Your task to perform on an android device: Empty the shopping cart on ebay. Add "usb-c to usb-b" to the cart on ebay, then select checkout. Image 0: 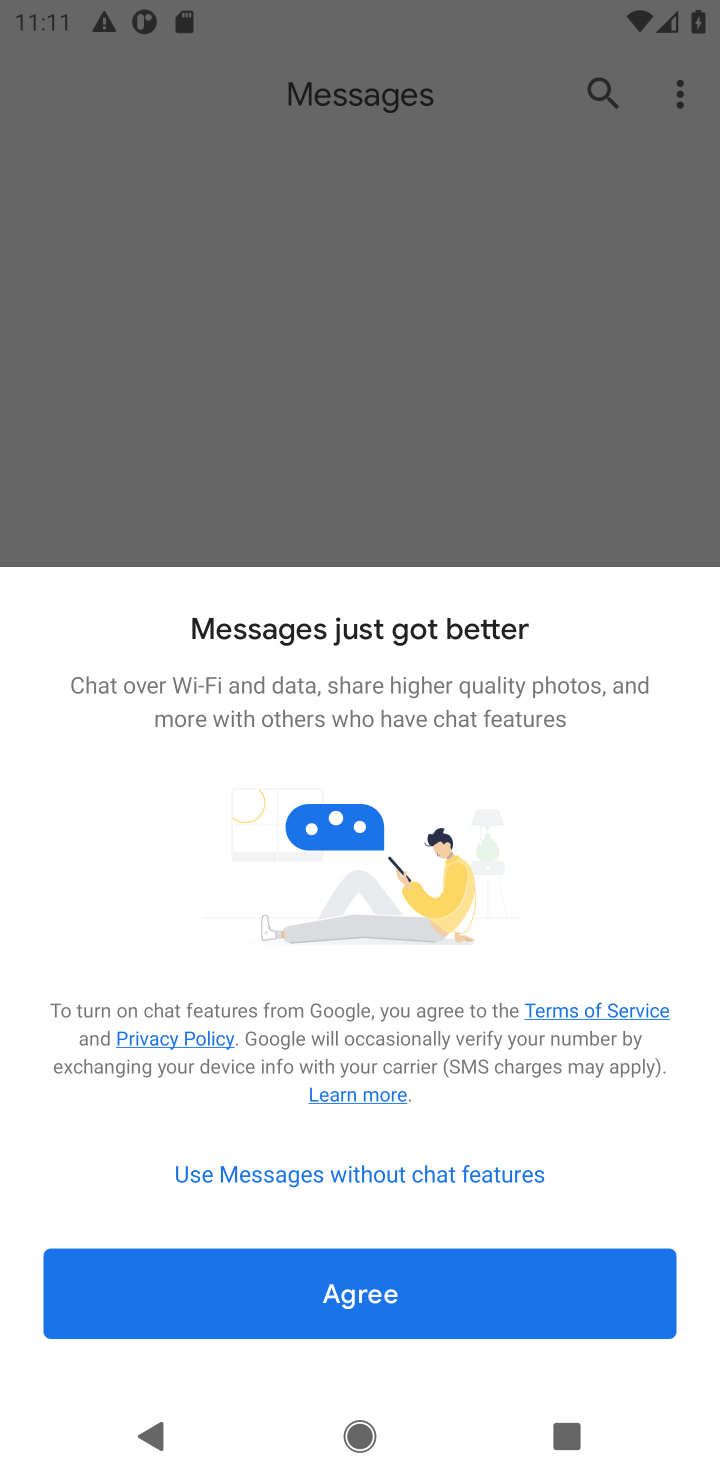
Step 0: press home button
Your task to perform on an android device: Empty the shopping cart on ebay. Add "usb-c to usb-b" to the cart on ebay, then select checkout. Image 1: 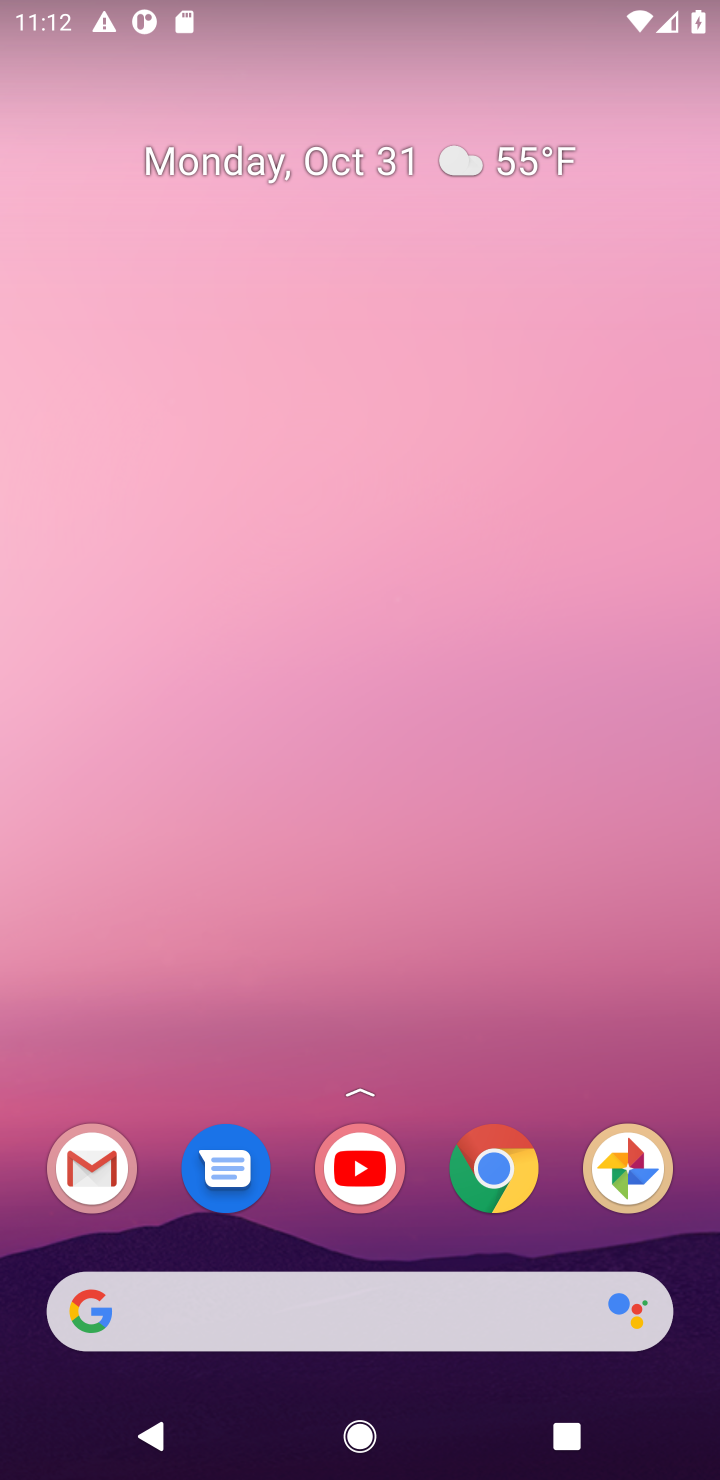
Step 1: click (499, 1166)
Your task to perform on an android device: Empty the shopping cart on ebay. Add "usb-c to usb-b" to the cart on ebay, then select checkout. Image 2: 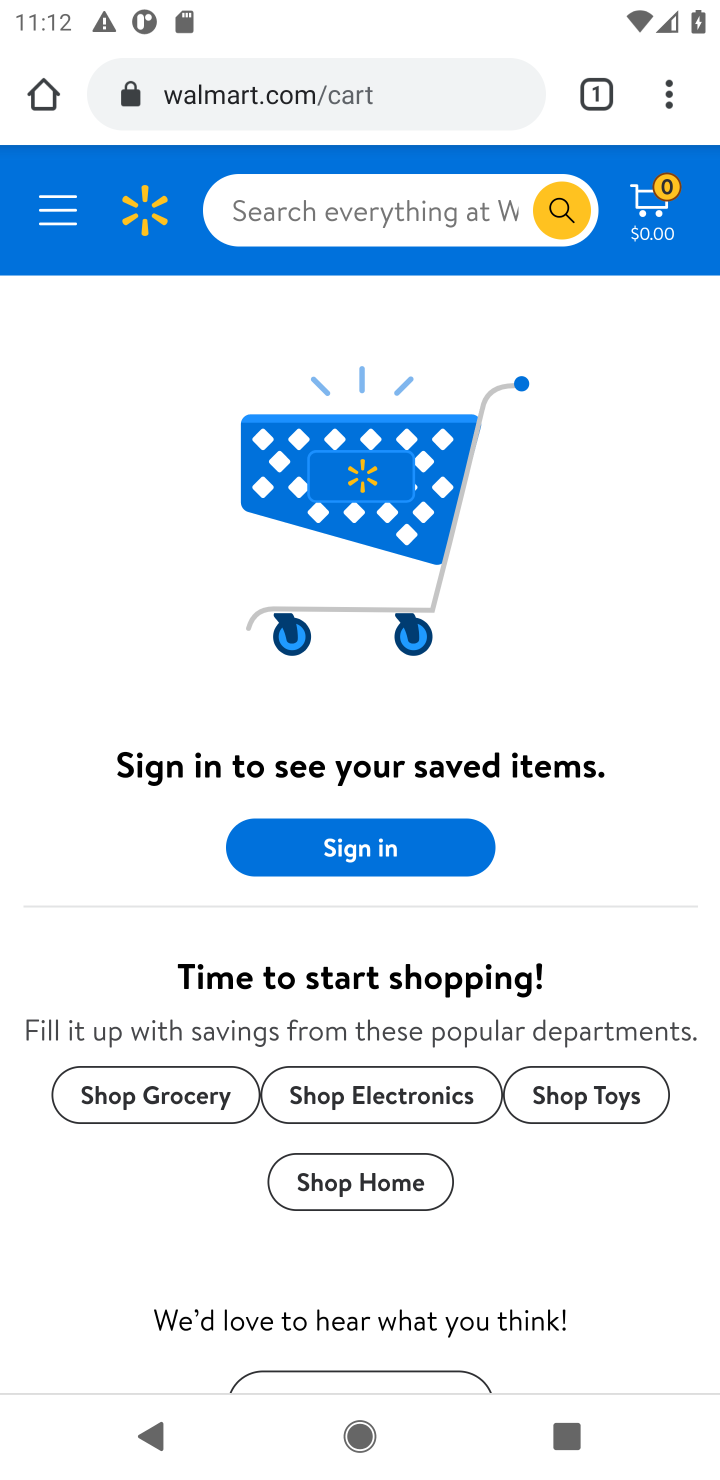
Step 2: click (235, 94)
Your task to perform on an android device: Empty the shopping cart on ebay. Add "usb-c to usb-b" to the cart on ebay, then select checkout. Image 3: 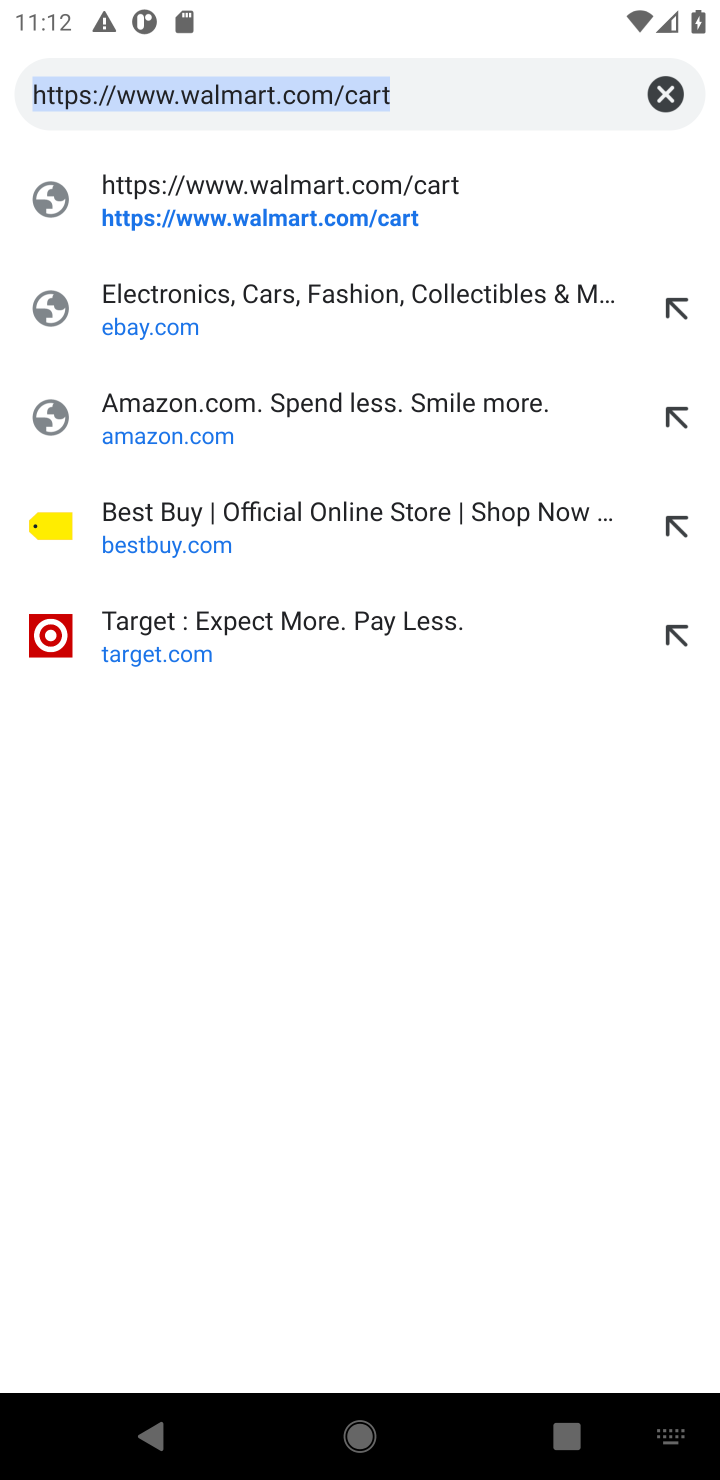
Step 3: type "ebay"
Your task to perform on an android device: Empty the shopping cart on ebay. Add "usb-c to usb-b" to the cart on ebay, then select checkout. Image 4: 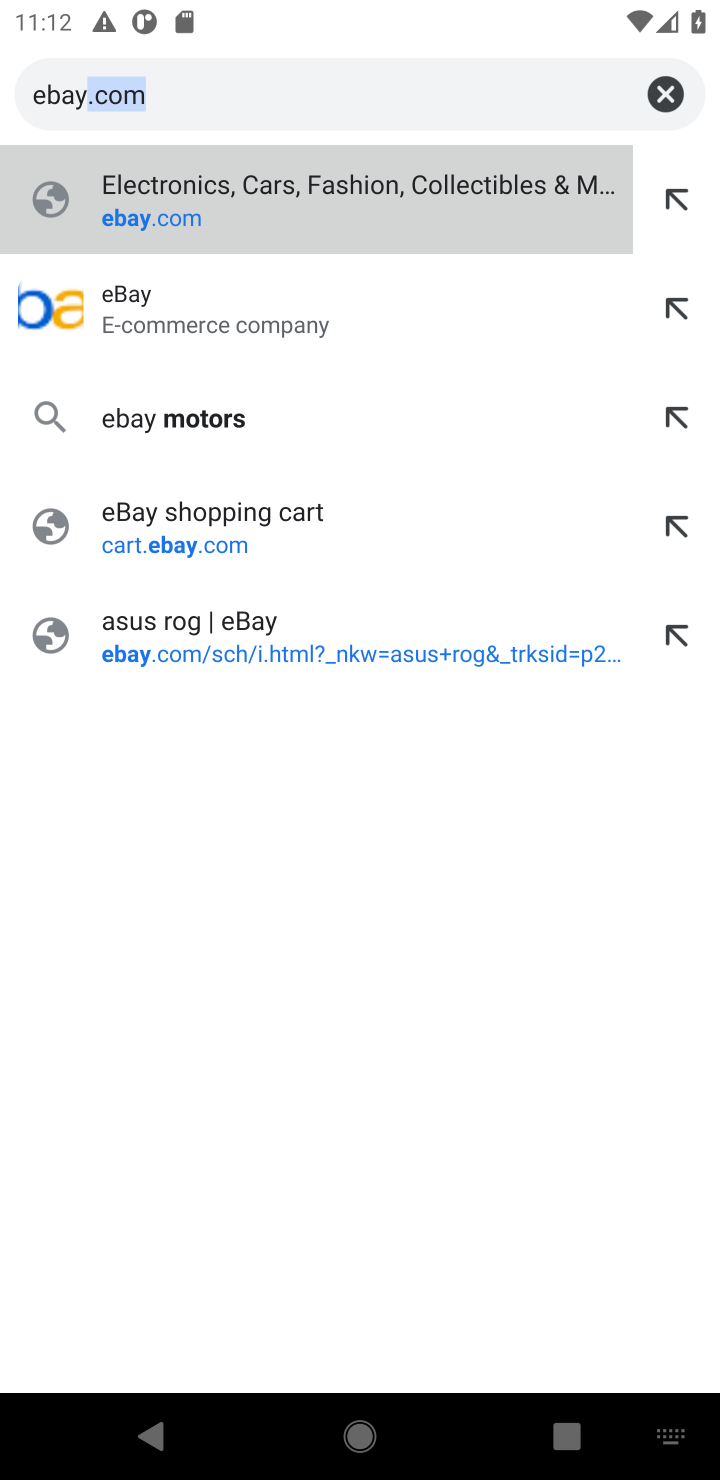
Step 4: press enter
Your task to perform on an android device: Empty the shopping cart on ebay. Add "usb-c to usb-b" to the cart on ebay, then select checkout. Image 5: 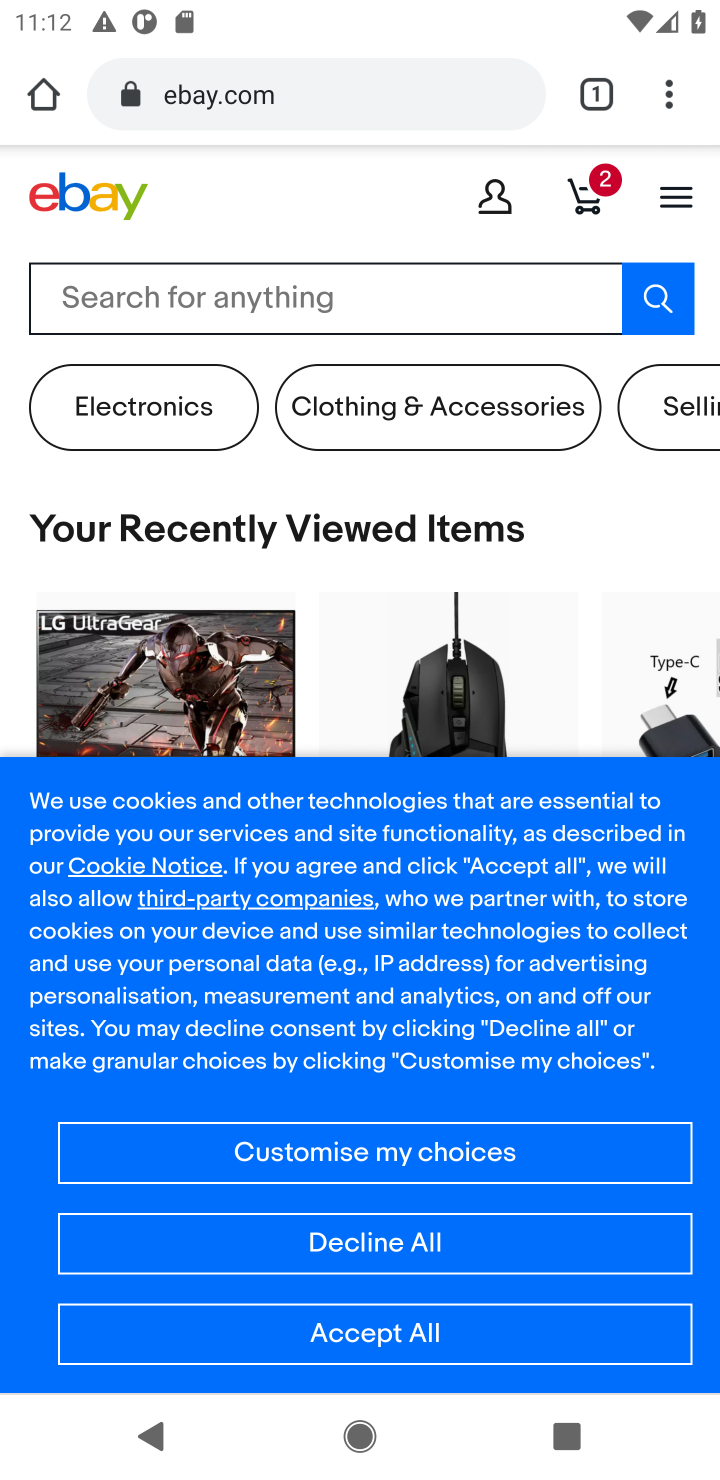
Step 5: click (351, 1337)
Your task to perform on an android device: Empty the shopping cart on ebay. Add "usb-c to usb-b" to the cart on ebay, then select checkout. Image 6: 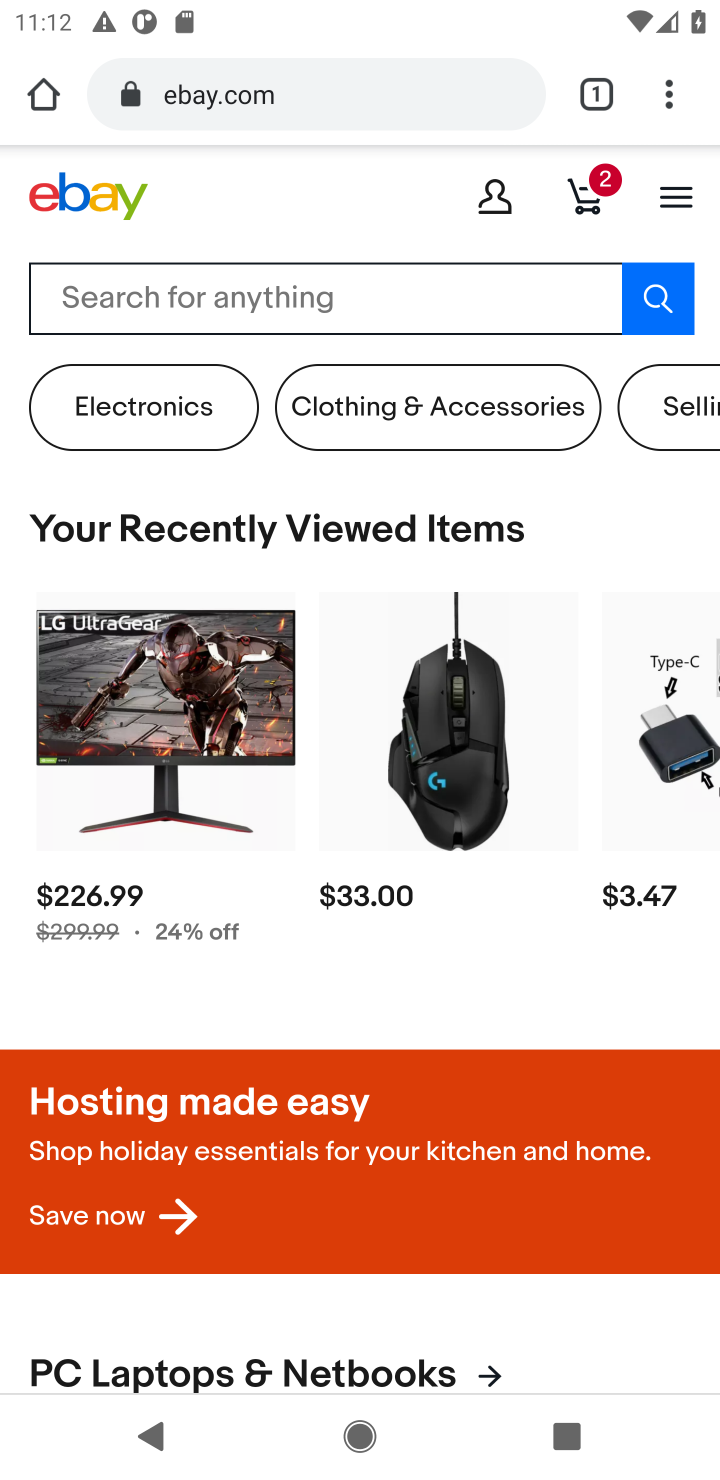
Step 6: click (582, 197)
Your task to perform on an android device: Empty the shopping cart on ebay. Add "usb-c to usb-b" to the cart on ebay, then select checkout. Image 7: 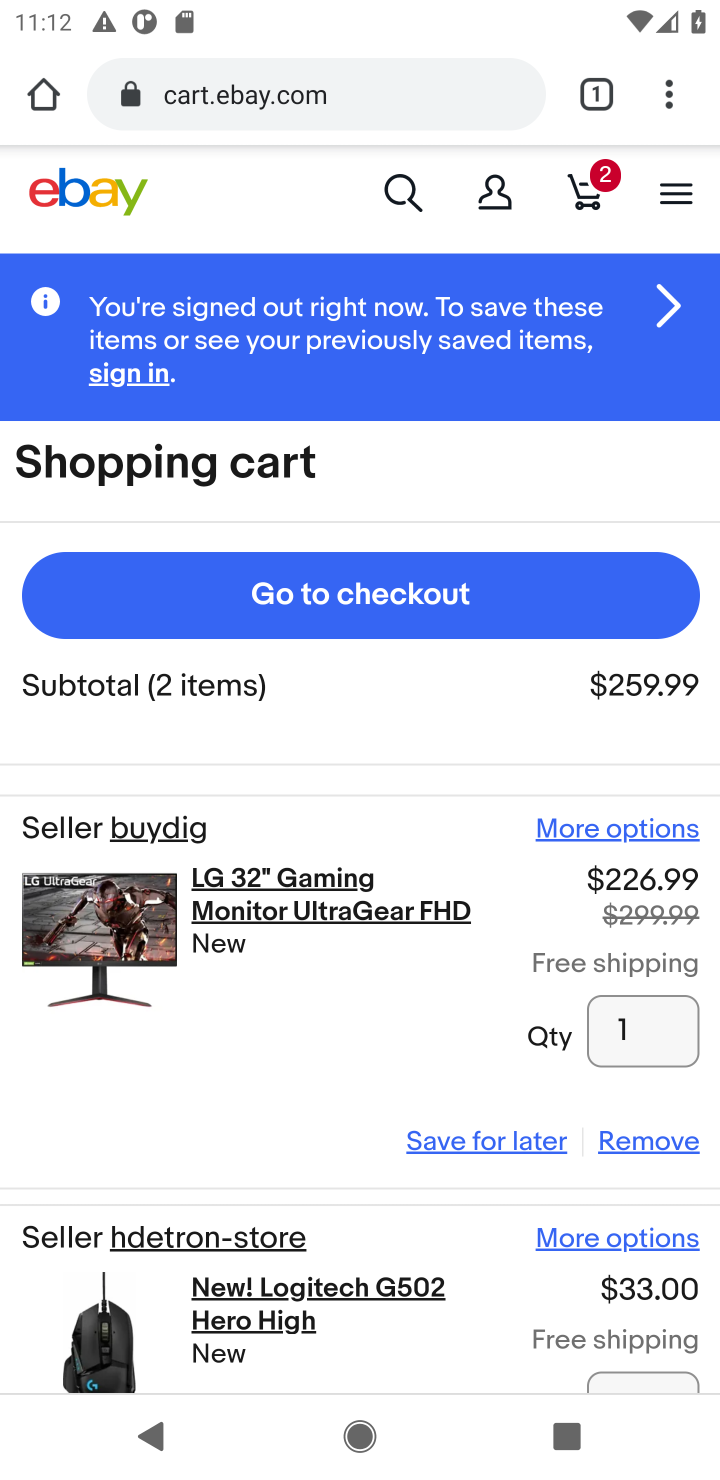
Step 7: click (623, 1141)
Your task to perform on an android device: Empty the shopping cart on ebay. Add "usb-c to usb-b" to the cart on ebay, then select checkout. Image 8: 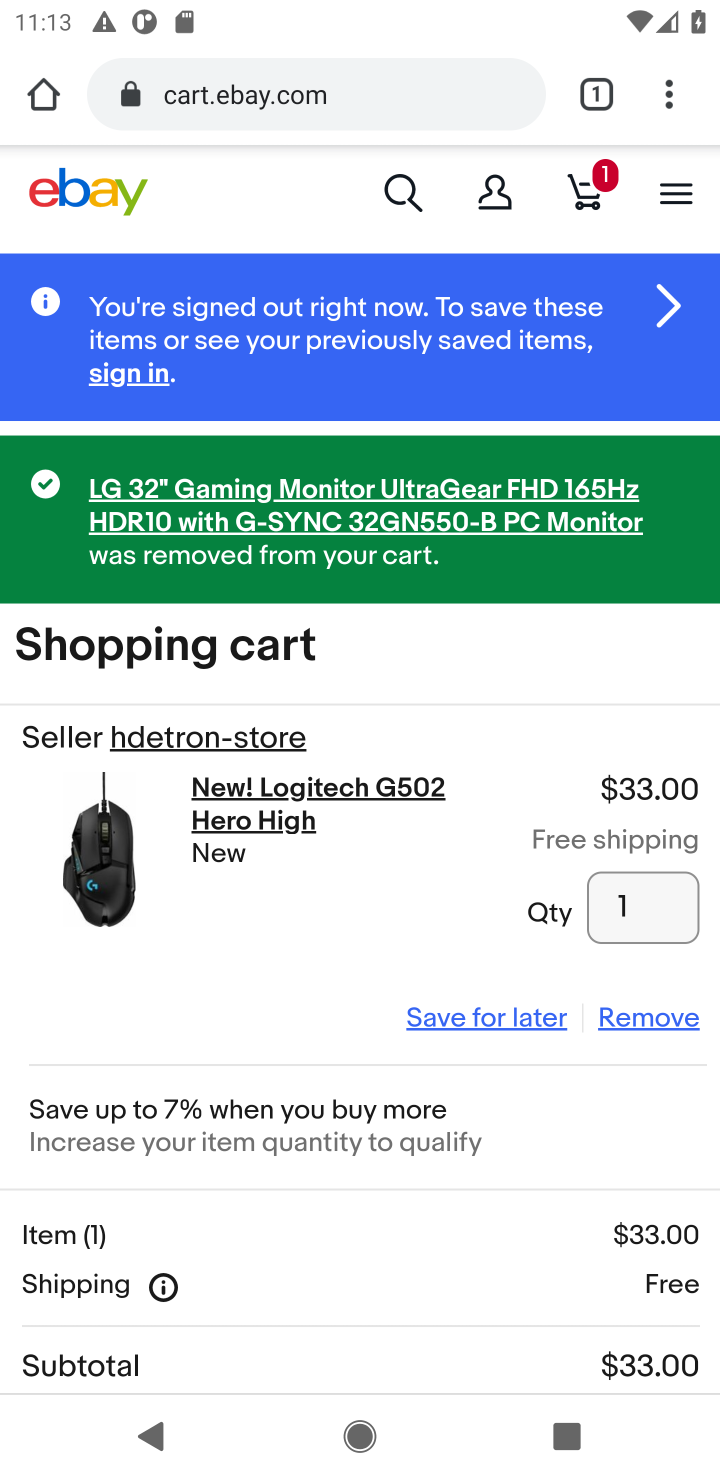
Step 8: click (650, 1018)
Your task to perform on an android device: Empty the shopping cart on ebay. Add "usb-c to usb-b" to the cart on ebay, then select checkout. Image 9: 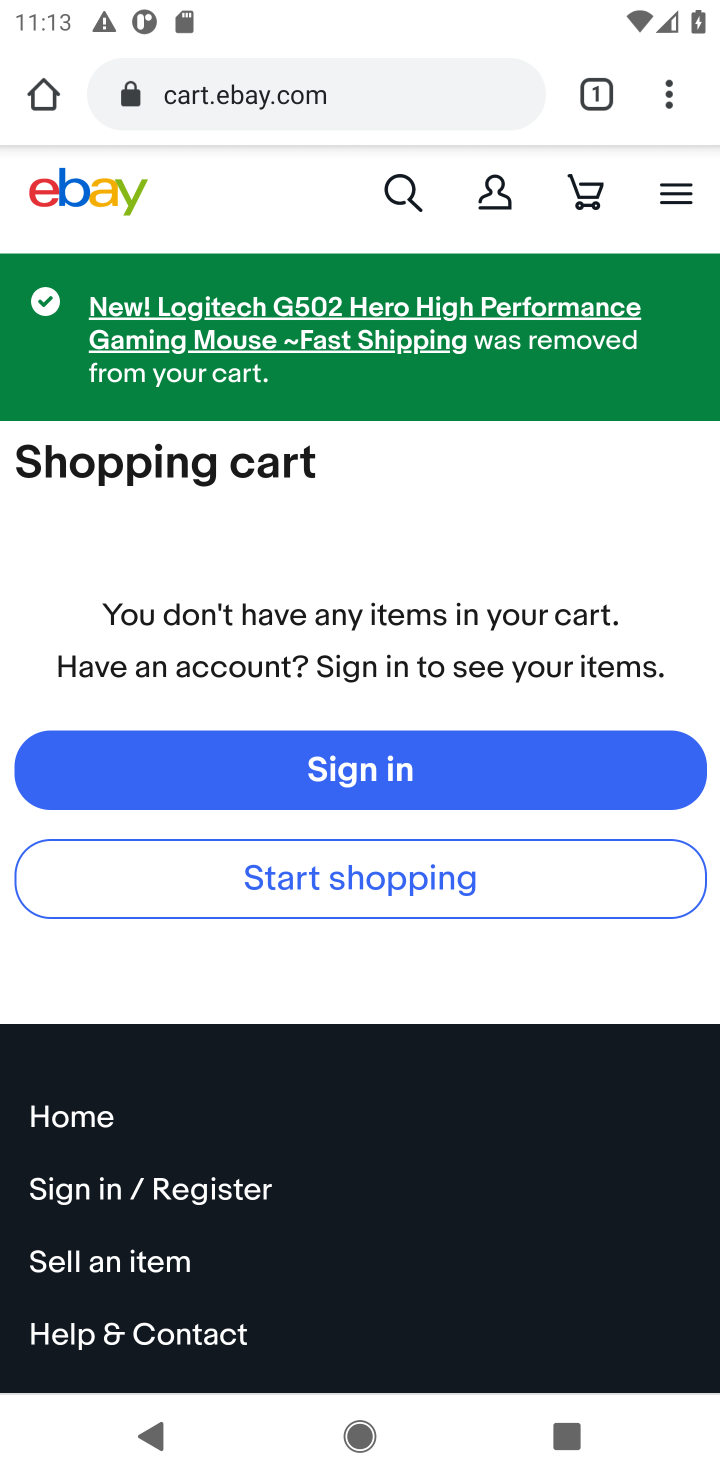
Step 9: click (410, 201)
Your task to perform on an android device: Empty the shopping cart on ebay. Add "usb-c to usb-b" to the cart on ebay, then select checkout. Image 10: 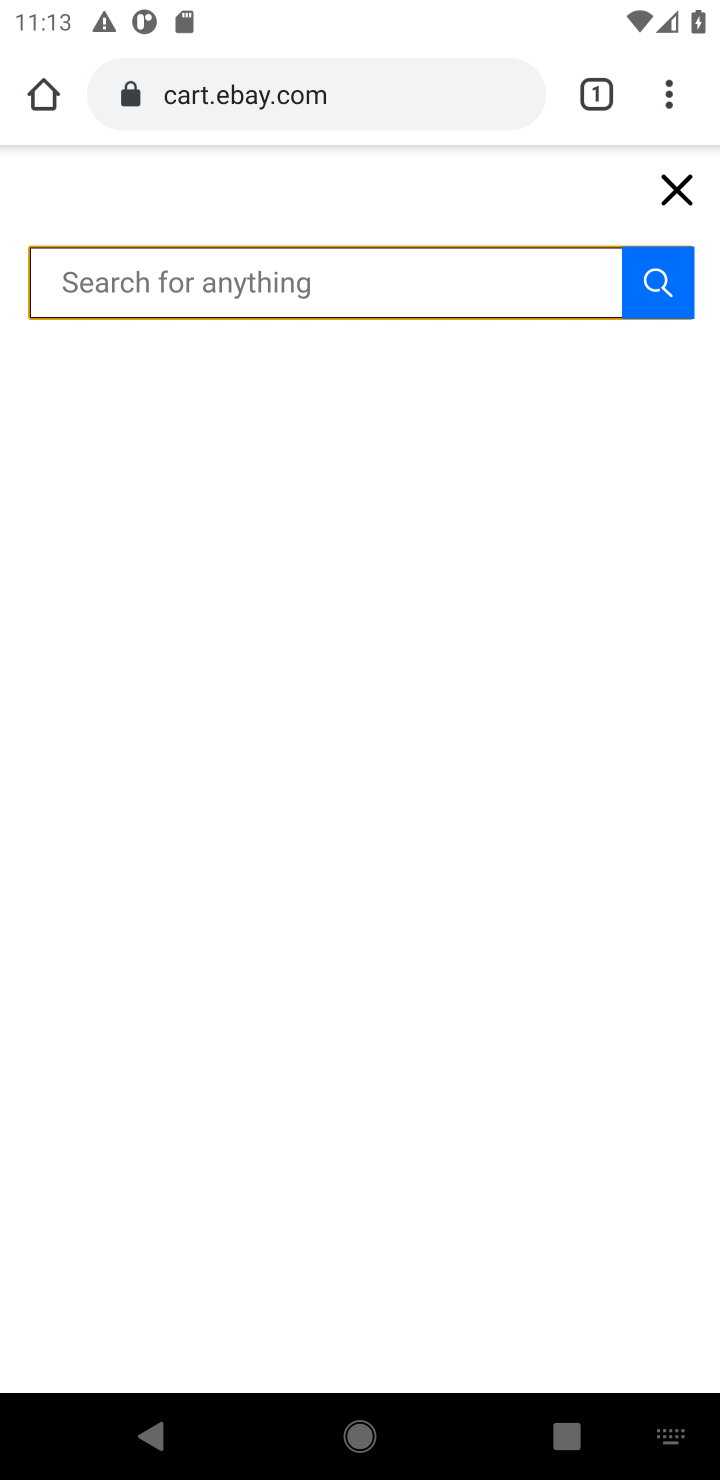
Step 10: type "usb-c to usb-b"
Your task to perform on an android device: Empty the shopping cart on ebay. Add "usb-c to usb-b" to the cart on ebay, then select checkout. Image 11: 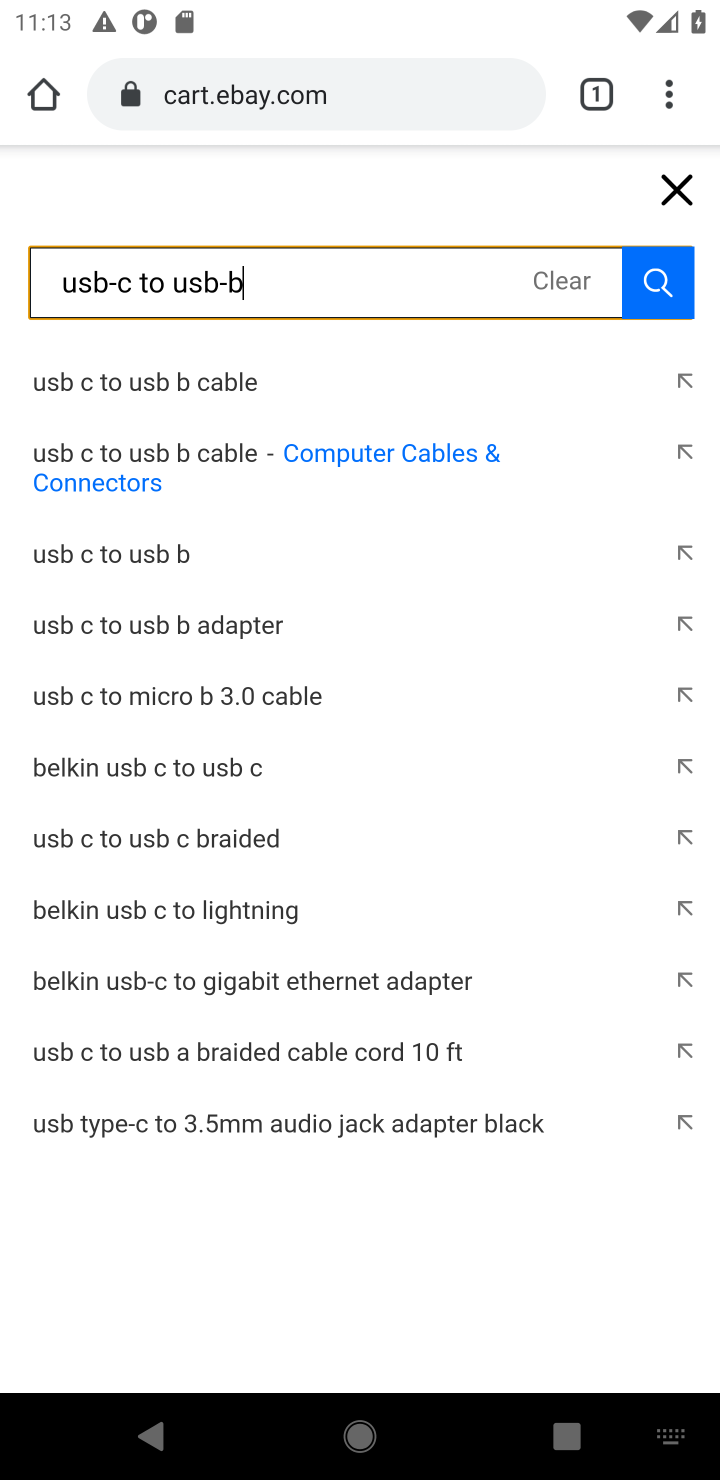
Step 11: click (664, 290)
Your task to perform on an android device: Empty the shopping cart on ebay. Add "usb-c to usb-b" to the cart on ebay, then select checkout. Image 12: 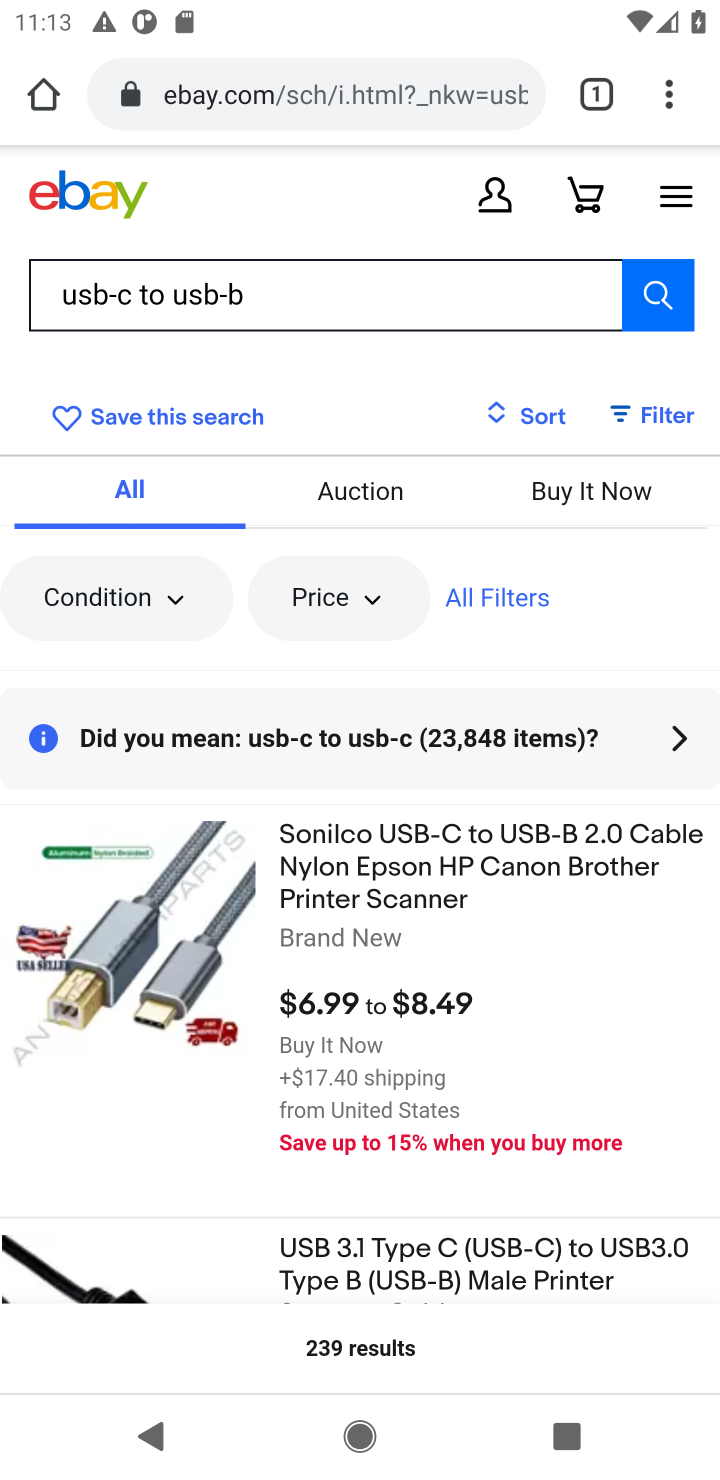
Step 12: click (377, 868)
Your task to perform on an android device: Empty the shopping cart on ebay. Add "usb-c to usb-b" to the cart on ebay, then select checkout. Image 13: 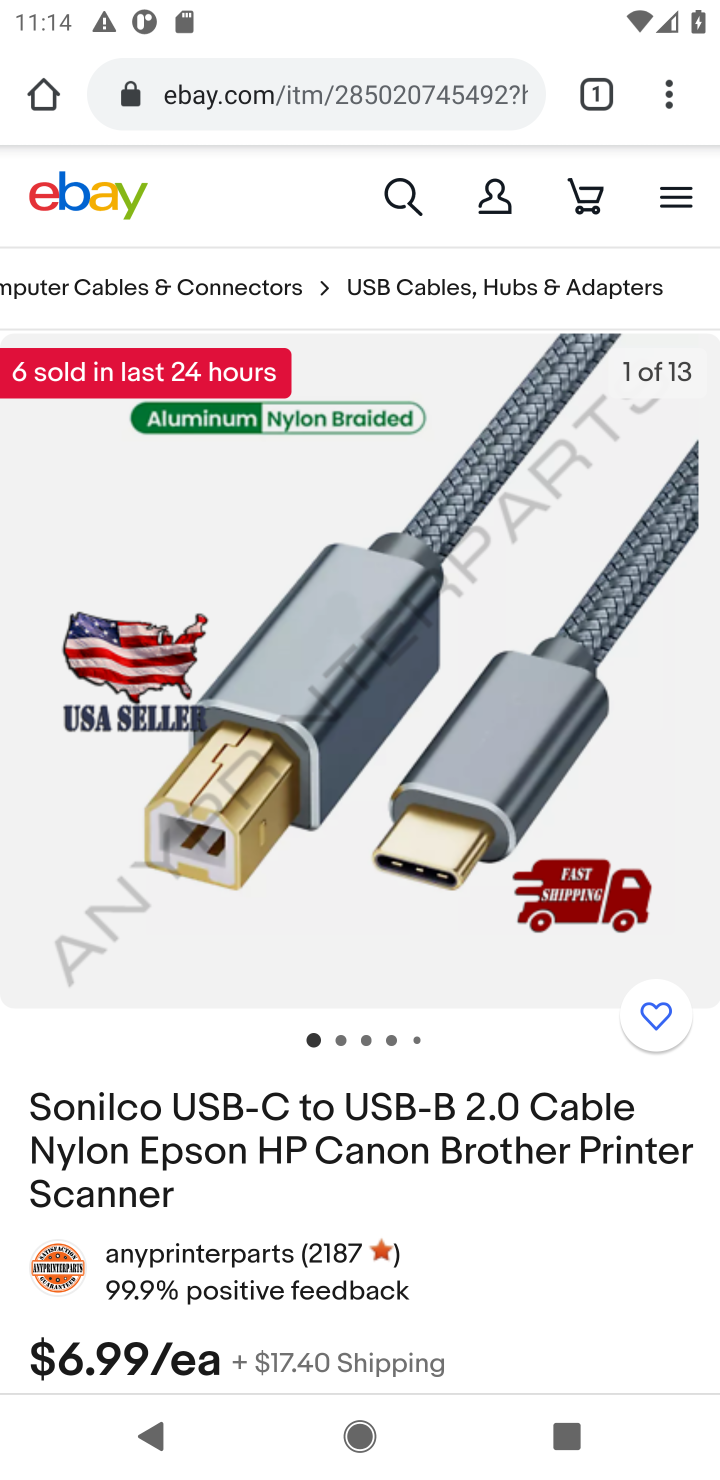
Step 13: drag from (555, 1340) to (431, 365)
Your task to perform on an android device: Empty the shopping cart on ebay. Add "usb-c to usb-b" to the cart on ebay, then select checkout. Image 14: 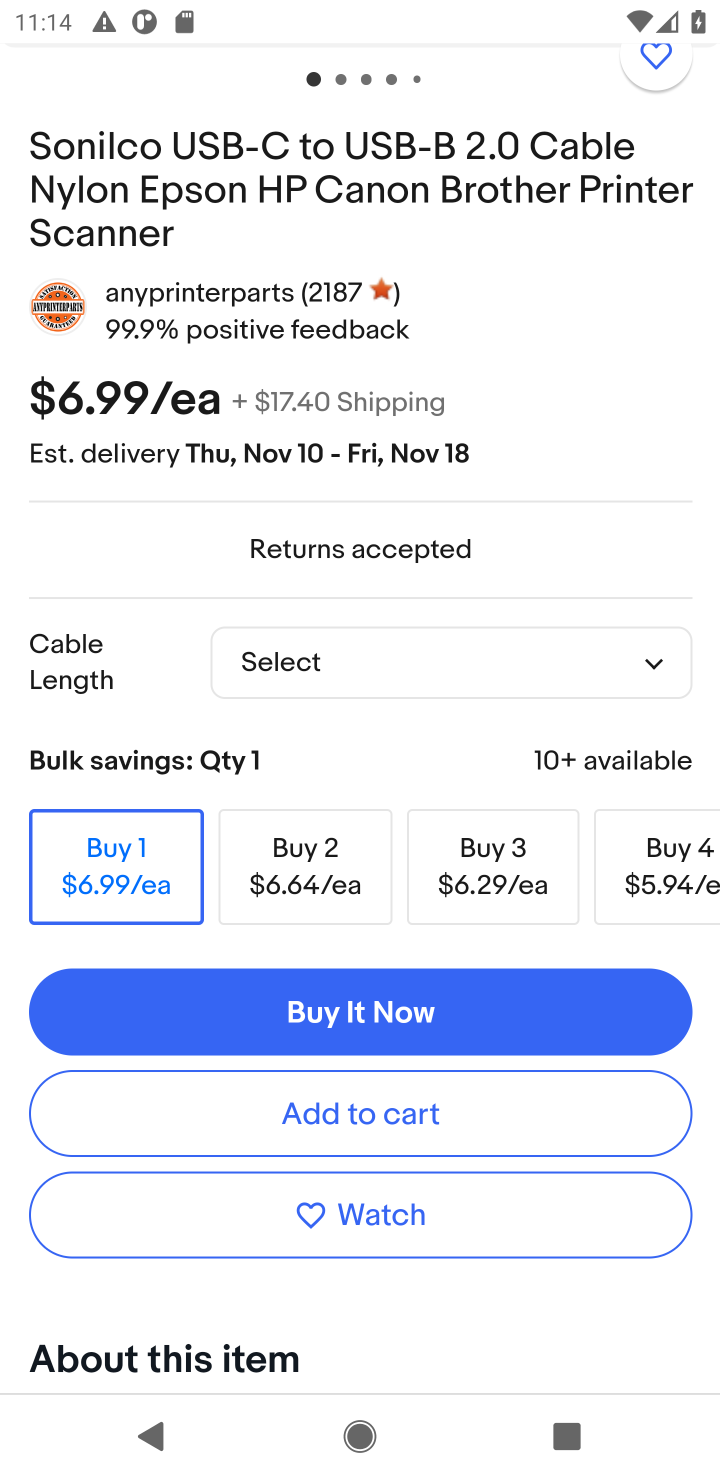
Step 14: click (347, 1115)
Your task to perform on an android device: Empty the shopping cart on ebay. Add "usb-c to usb-b" to the cart on ebay, then select checkout. Image 15: 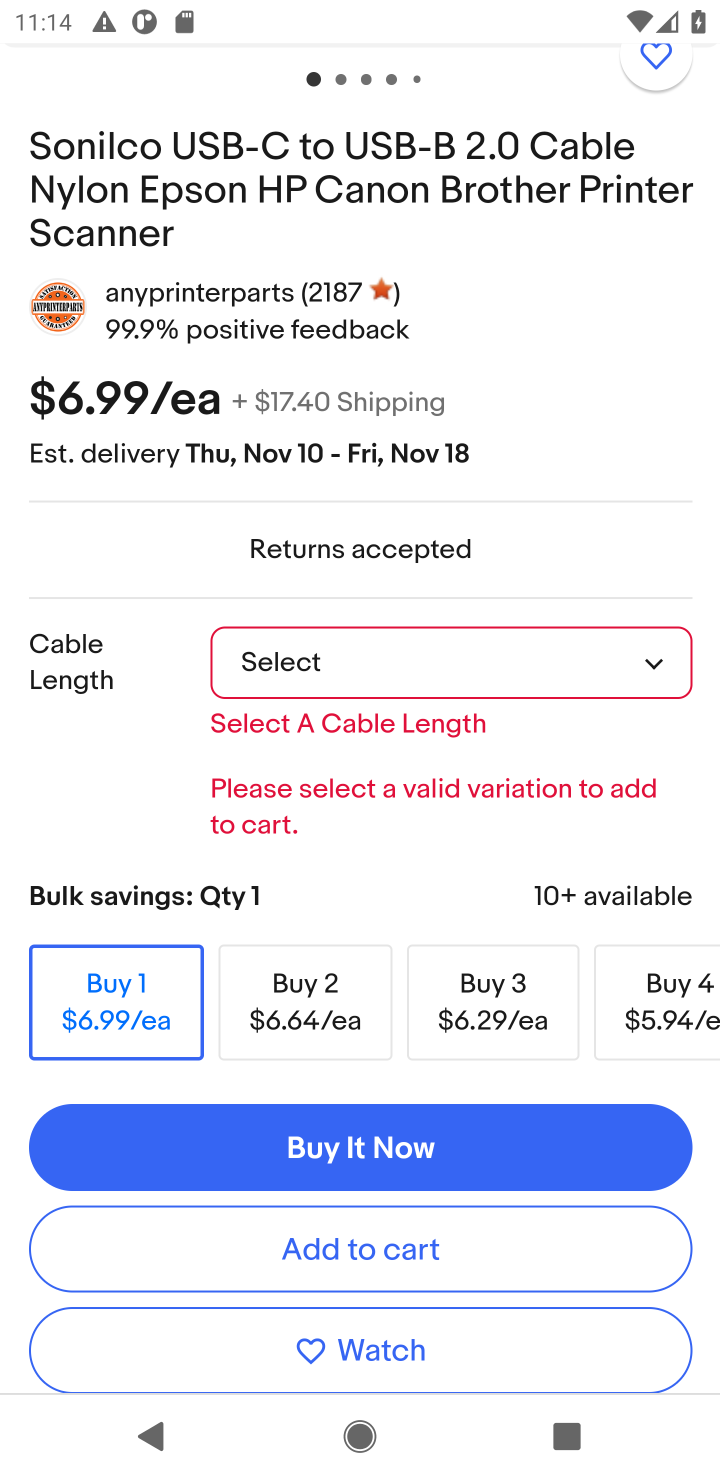
Step 15: click (354, 683)
Your task to perform on an android device: Empty the shopping cart on ebay. Add "usb-c to usb-b" to the cart on ebay, then select checkout. Image 16: 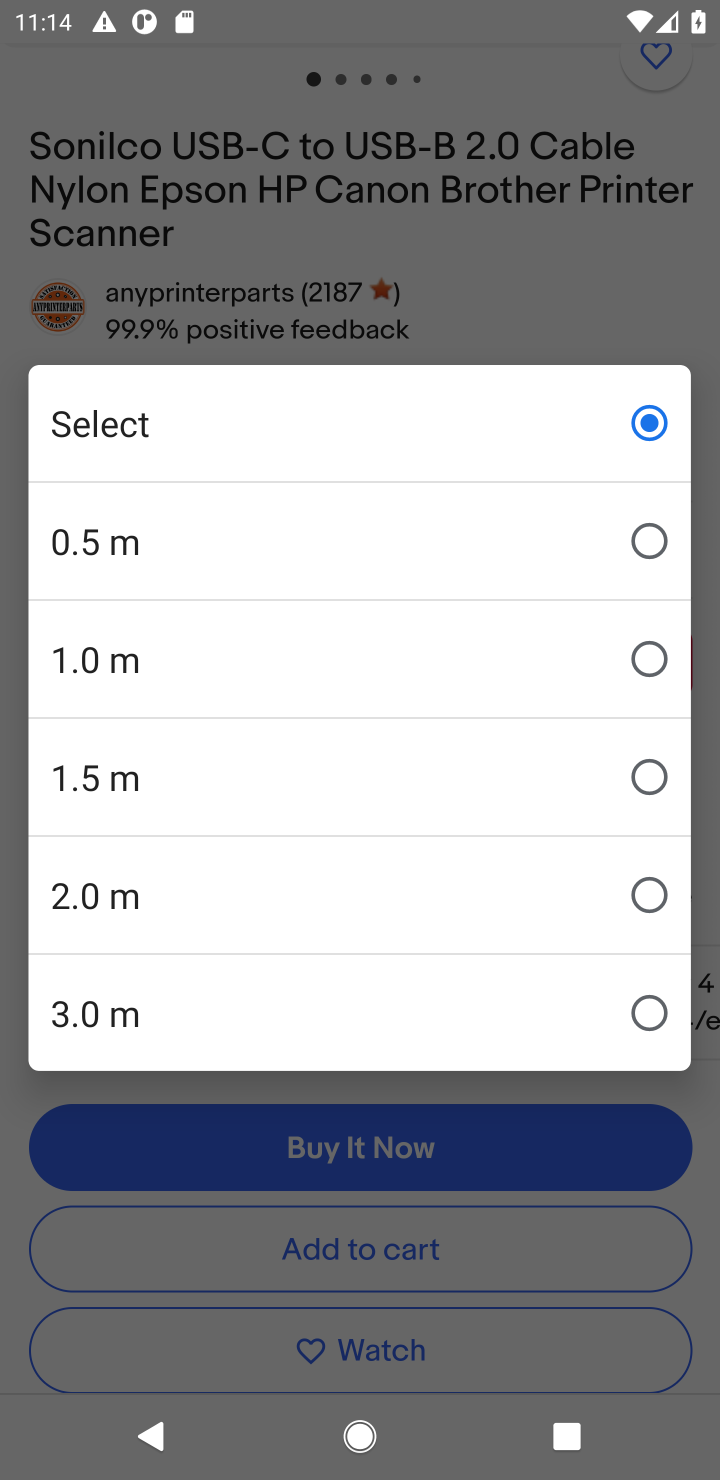
Step 16: click (221, 544)
Your task to perform on an android device: Empty the shopping cart on ebay. Add "usb-c to usb-b" to the cart on ebay, then select checkout. Image 17: 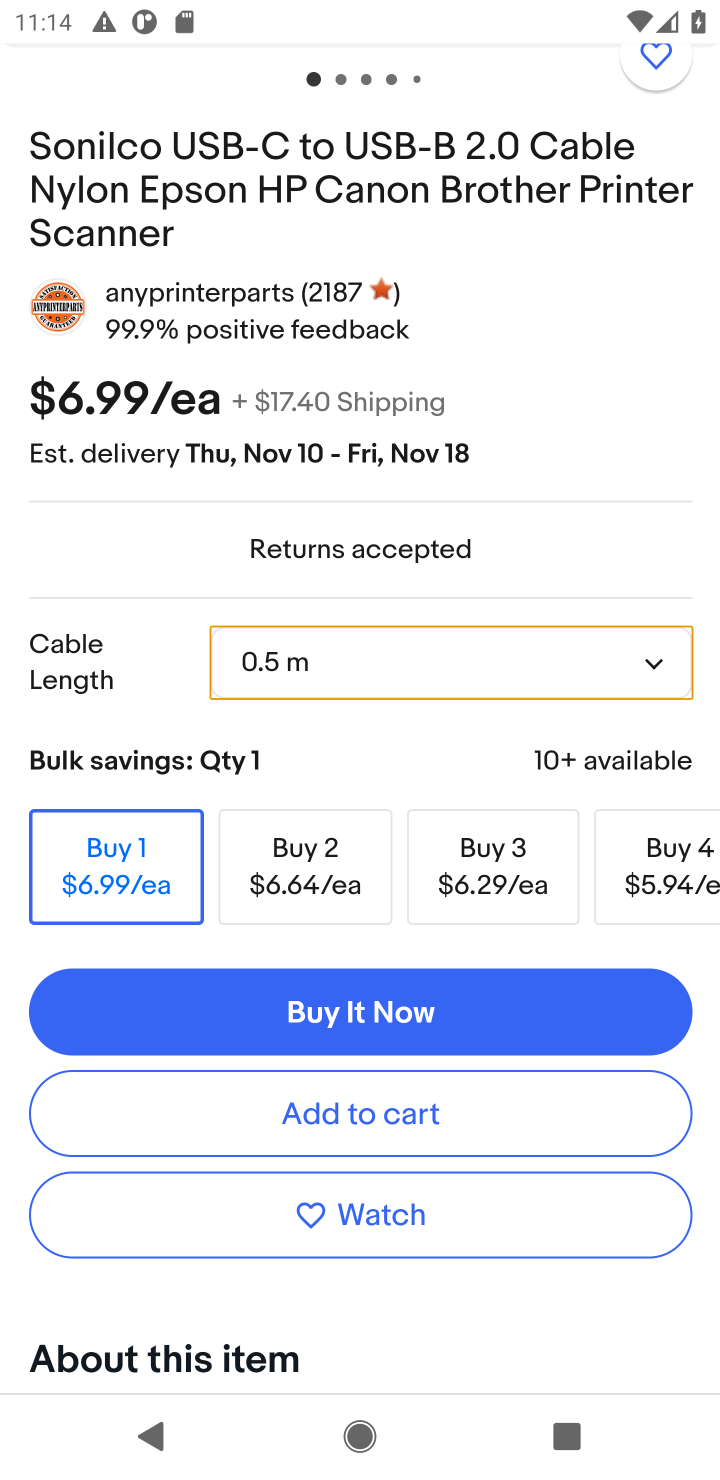
Step 17: click (219, 1100)
Your task to perform on an android device: Empty the shopping cart on ebay. Add "usb-c to usb-b" to the cart on ebay, then select checkout. Image 18: 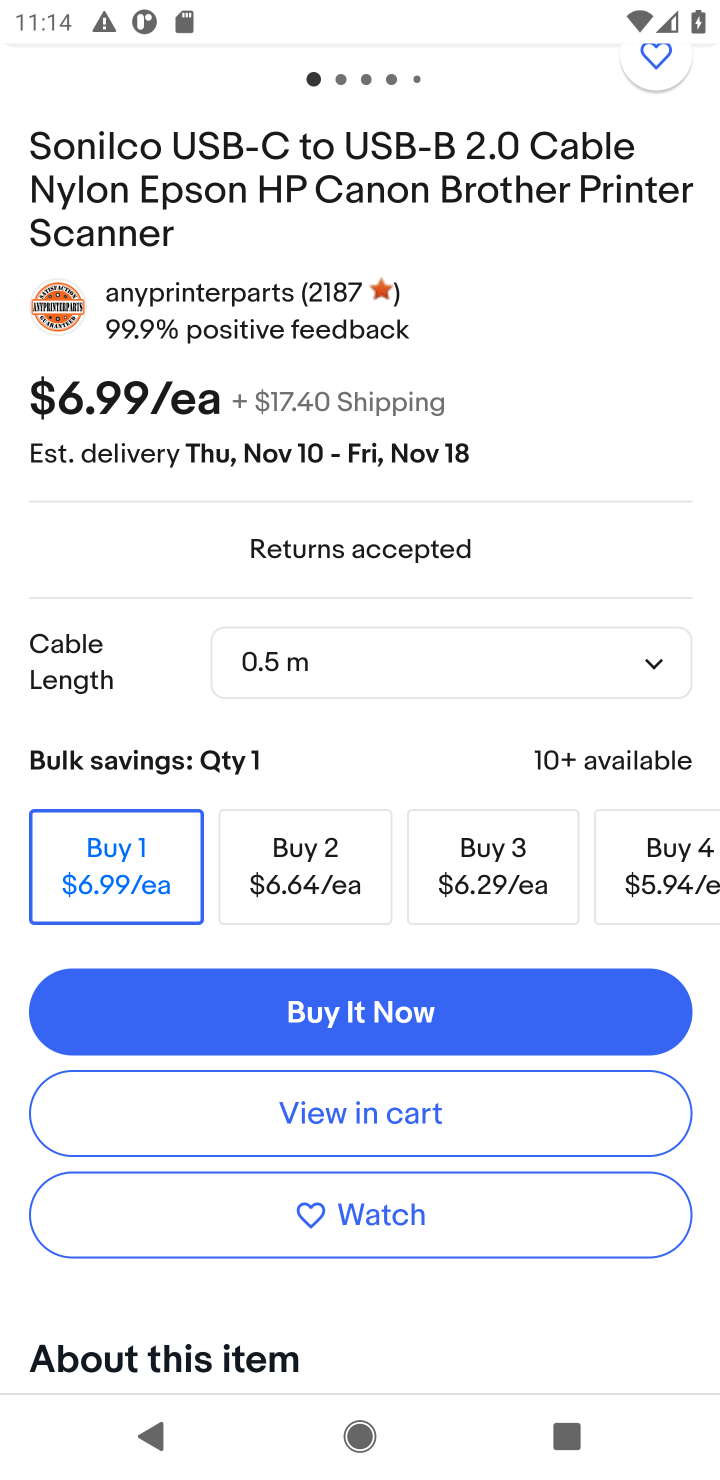
Step 18: click (276, 1110)
Your task to perform on an android device: Empty the shopping cart on ebay. Add "usb-c to usb-b" to the cart on ebay, then select checkout. Image 19: 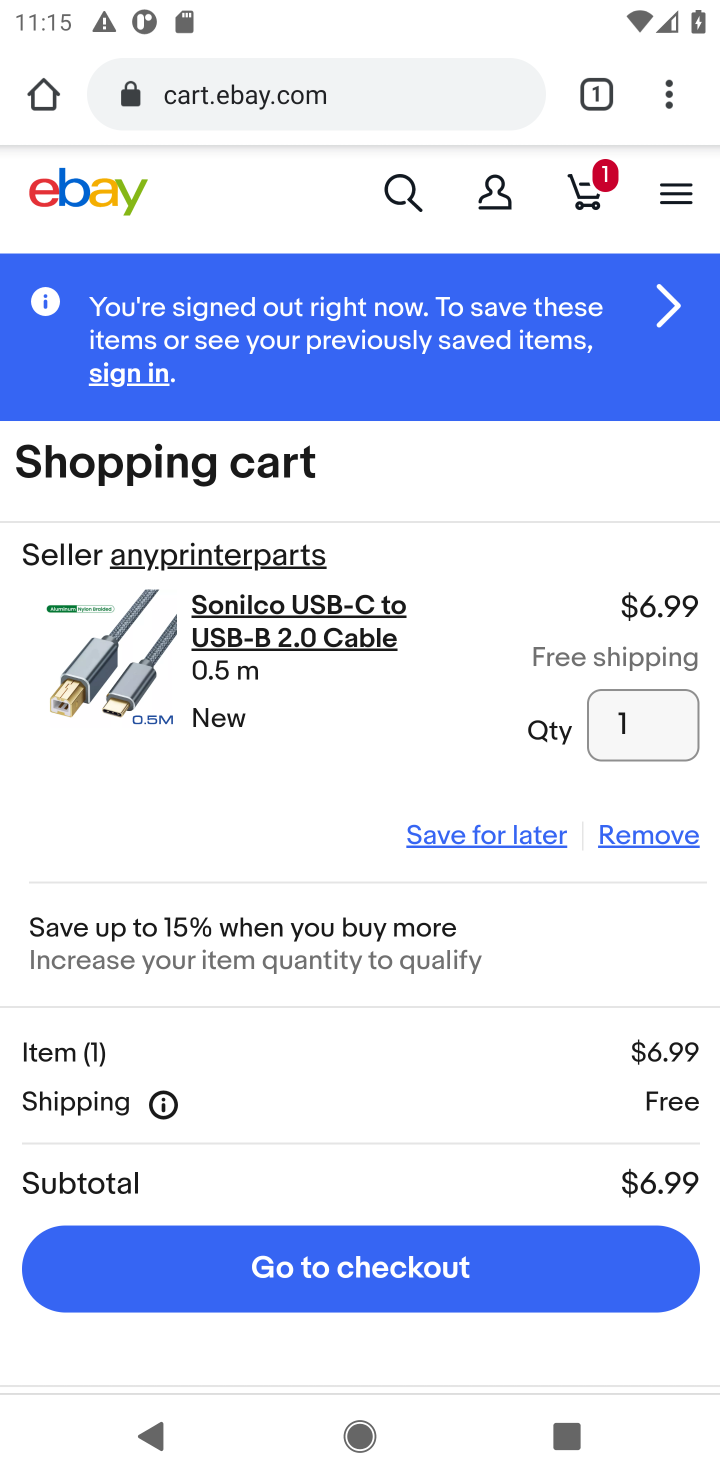
Step 19: click (386, 1259)
Your task to perform on an android device: Empty the shopping cart on ebay. Add "usb-c to usb-b" to the cart on ebay, then select checkout. Image 20: 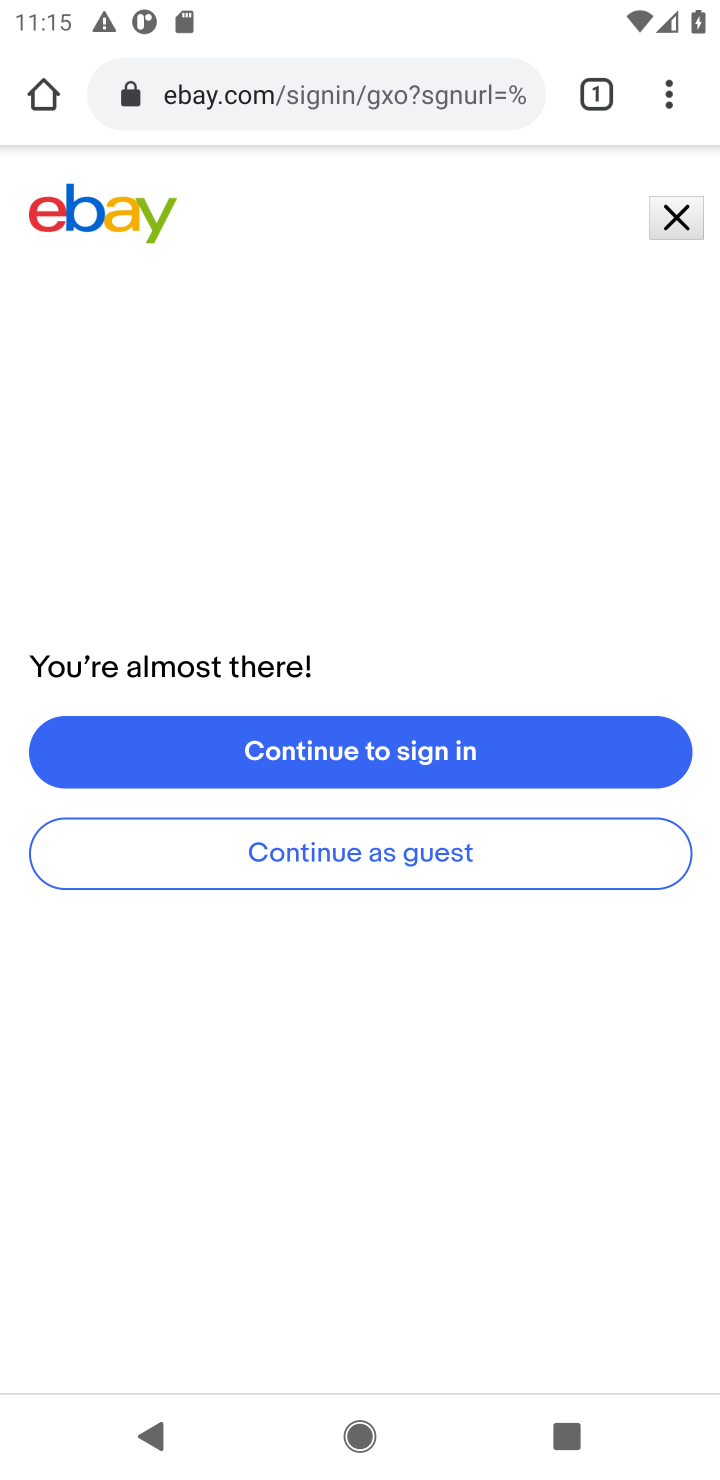
Step 20: task complete